Your task to perform on an android device: Open Chrome and go to settings Image 0: 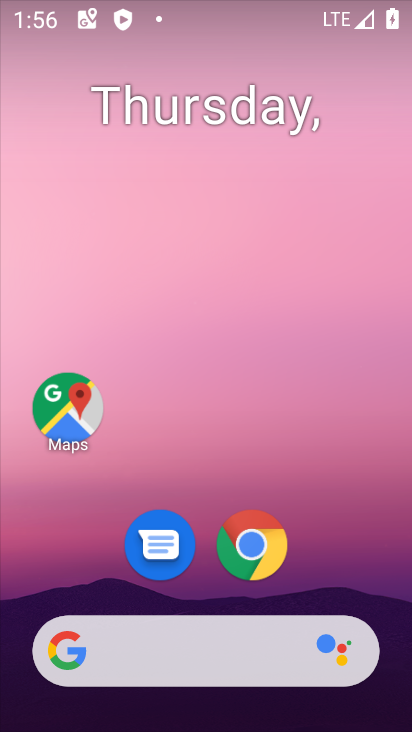
Step 0: click (268, 550)
Your task to perform on an android device: Open Chrome and go to settings Image 1: 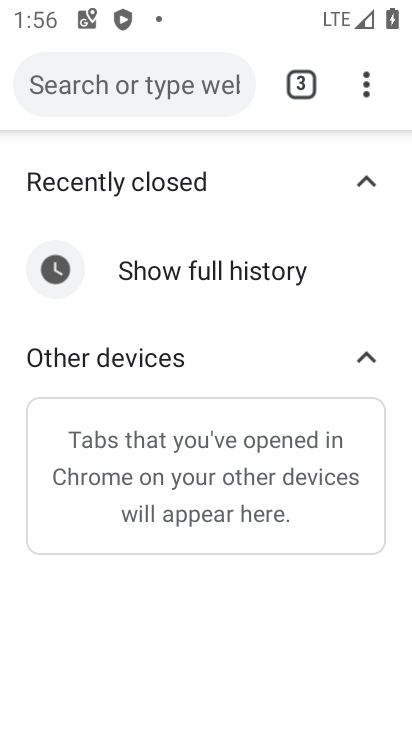
Step 1: click (364, 84)
Your task to perform on an android device: Open Chrome and go to settings Image 2: 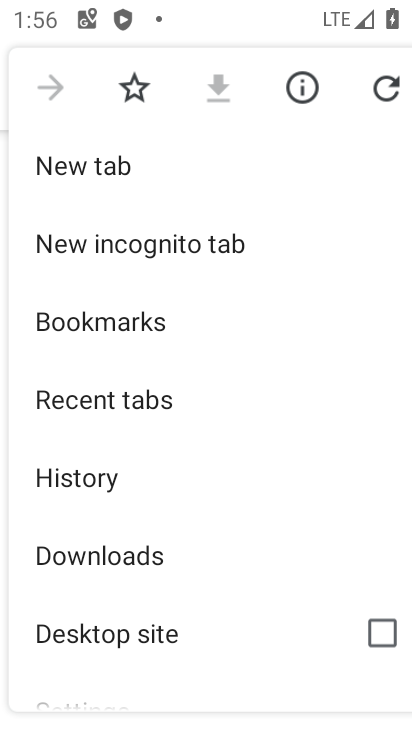
Step 2: drag from (108, 582) to (126, 207)
Your task to perform on an android device: Open Chrome and go to settings Image 3: 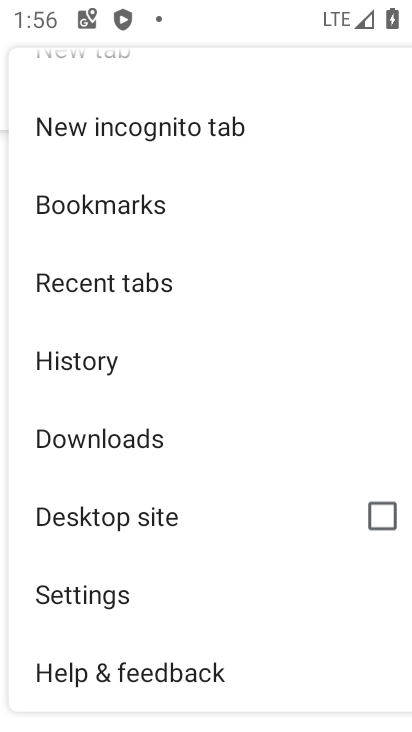
Step 3: click (110, 584)
Your task to perform on an android device: Open Chrome and go to settings Image 4: 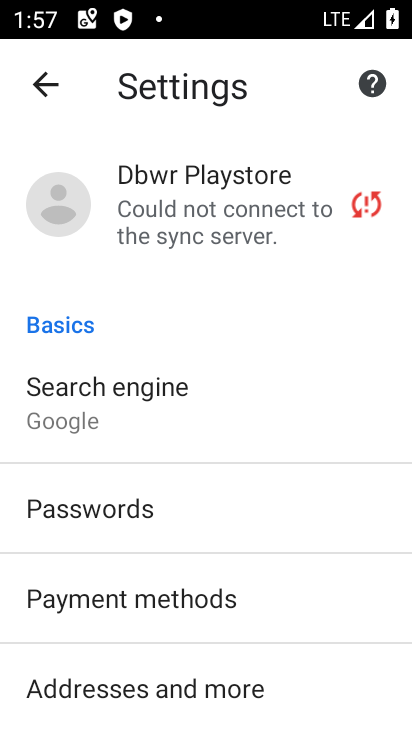
Step 4: task complete